Your task to perform on an android device: Open Reddit.com Image 0: 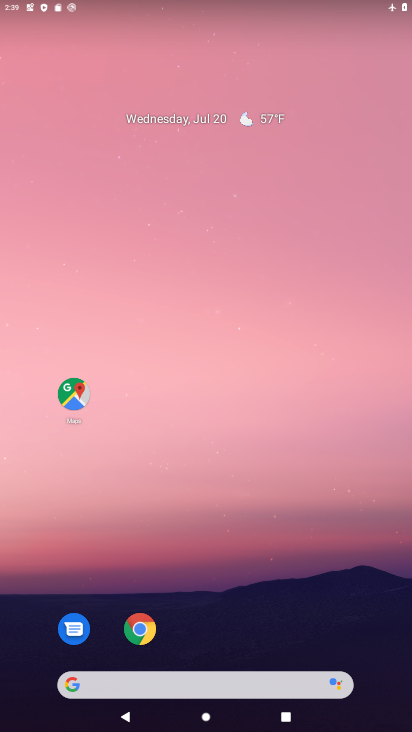
Step 0: click (150, 632)
Your task to perform on an android device: Open Reddit.com Image 1: 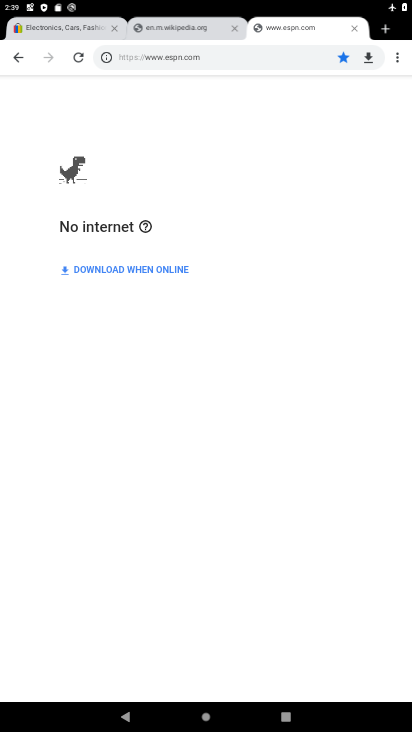
Step 1: click (388, 33)
Your task to perform on an android device: Open Reddit.com Image 2: 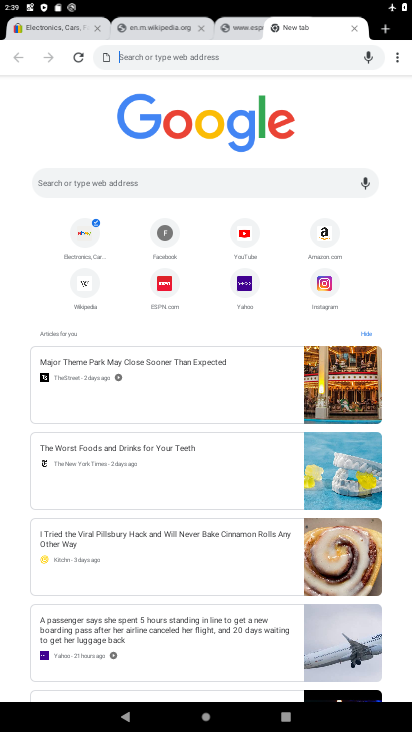
Step 2: click (112, 182)
Your task to perform on an android device: Open Reddit.com Image 3: 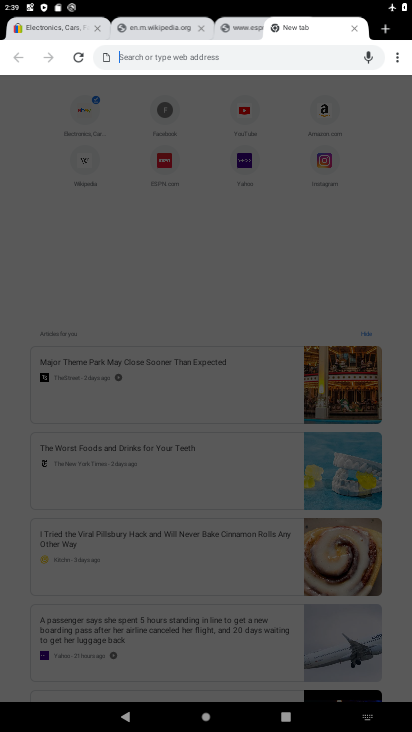
Step 3: type "Reddit.com"
Your task to perform on an android device: Open Reddit.com Image 4: 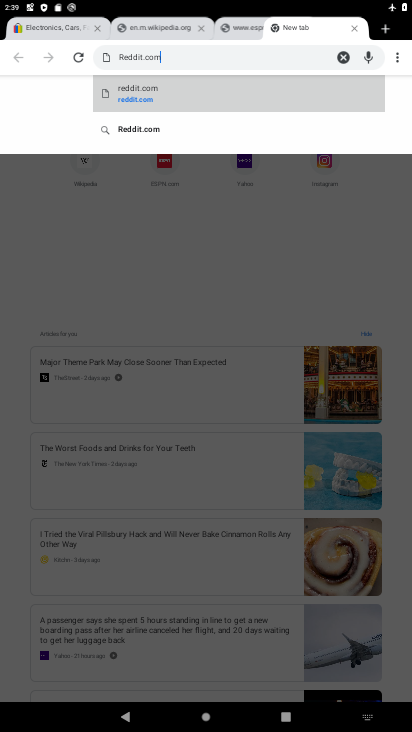
Step 4: click (259, 103)
Your task to perform on an android device: Open Reddit.com Image 5: 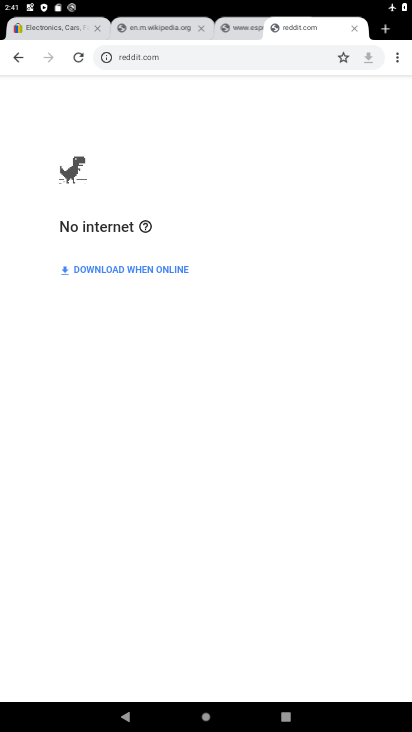
Step 5: task complete